Your task to perform on an android device: Open the web browser Image 0: 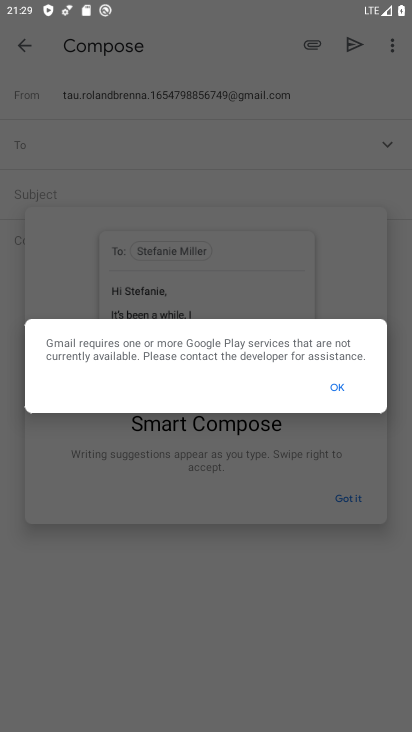
Step 0: press home button
Your task to perform on an android device: Open the web browser Image 1: 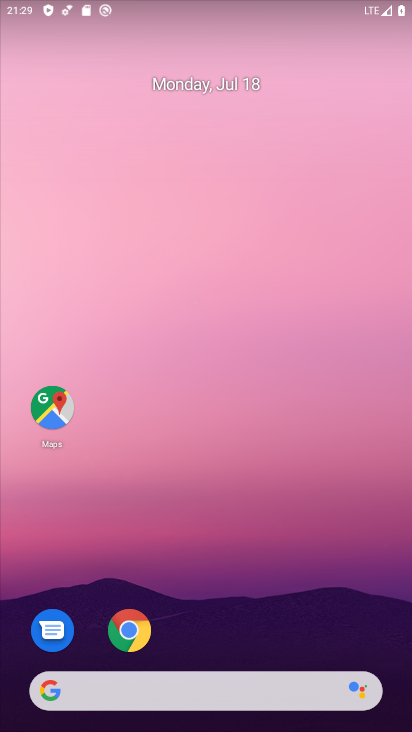
Step 1: click (137, 619)
Your task to perform on an android device: Open the web browser Image 2: 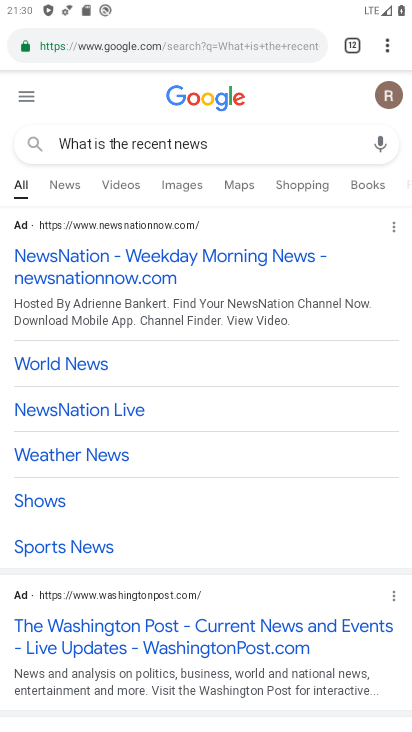
Step 2: task complete